Your task to perform on an android device: change text size in settings app Image 0: 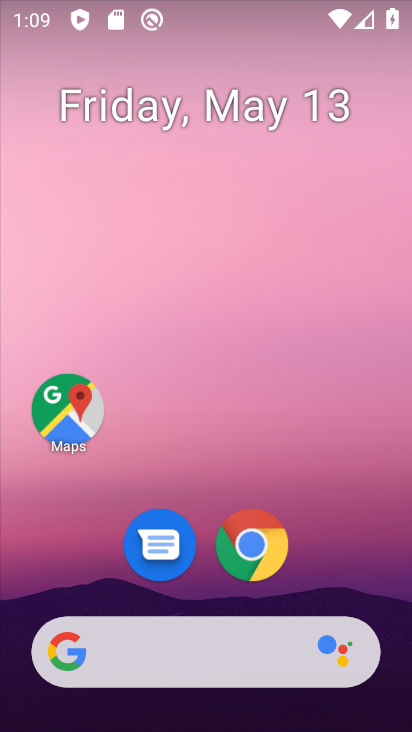
Step 0: drag from (383, 592) to (76, 1)
Your task to perform on an android device: change text size in settings app Image 1: 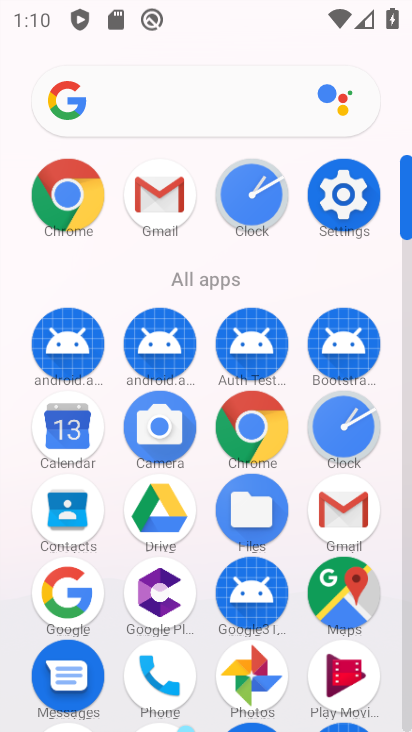
Step 1: click (341, 219)
Your task to perform on an android device: change text size in settings app Image 2: 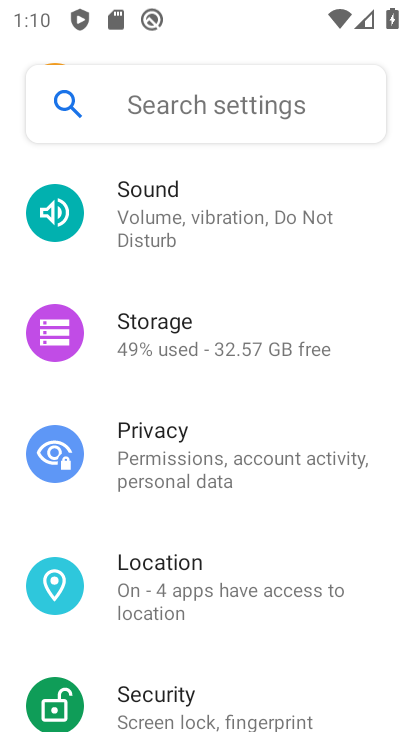
Step 2: drag from (214, 463) to (216, 729)
Your task to perform on an android device: change text size in settings app Image 3: 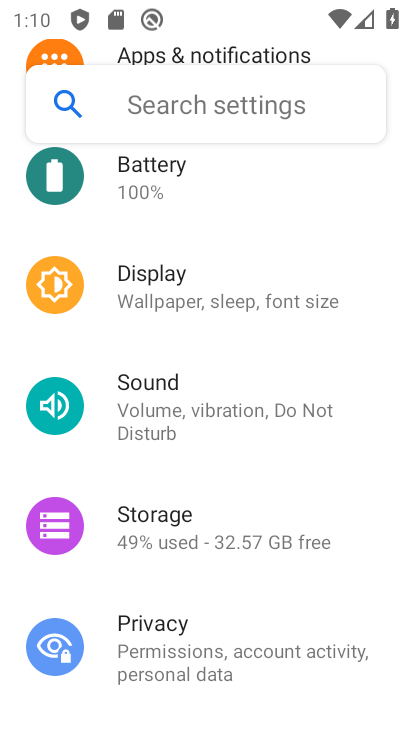
Step 3: click (137, 278)
Your task to perform on an android device: change text size in settings app Image 4: 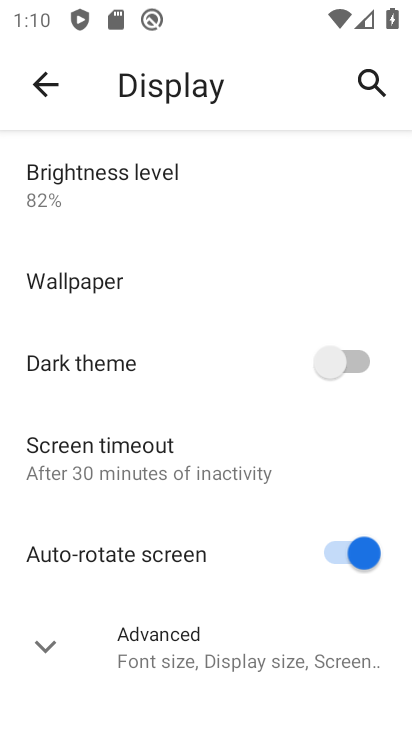
Step 4: click (239, 628)
Your task to perform on an android device: change text size in settings app Image 5: 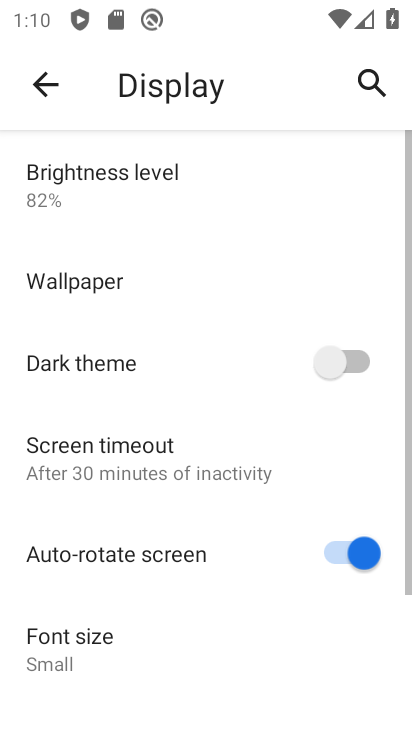
Step 5: click (157, 640)
Your task to perform on an android device: change text size in settings app Image 6: 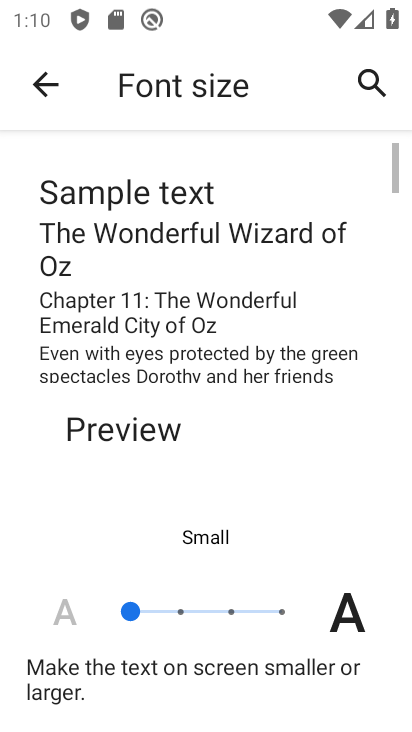
Step 6: task complete